Your task to perform on an android device: Go to Android settings Image 0: 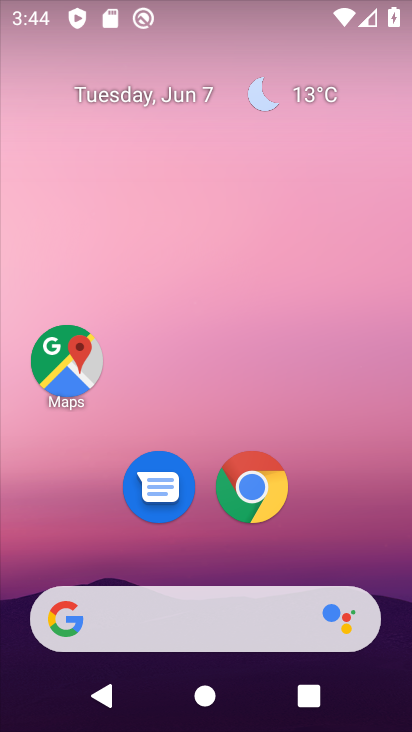
Step 0: drag from (190, 483) to (276, 2)
Your task to perform on an android device: Go to Android settings Image 1: 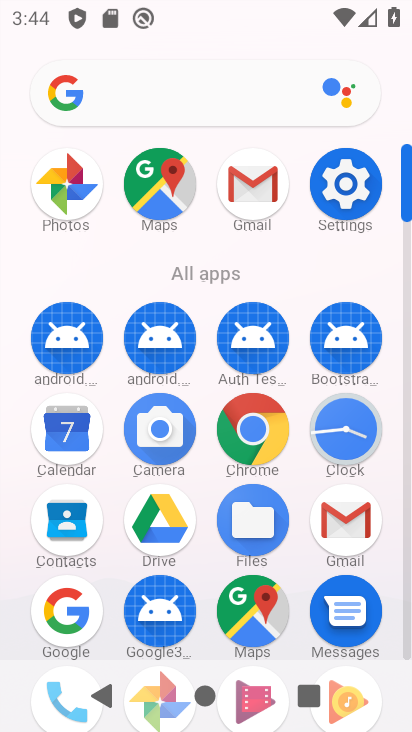
Step 1: click (339, 192)
Your task to perform on an android device: Go to Android settings Image 2: 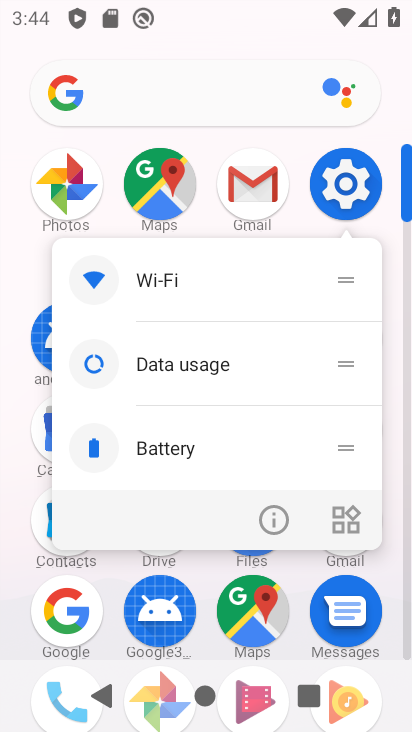
Step 2: click (355, 180)
Your task to perform on an android device: Go to Android settings Image 3: 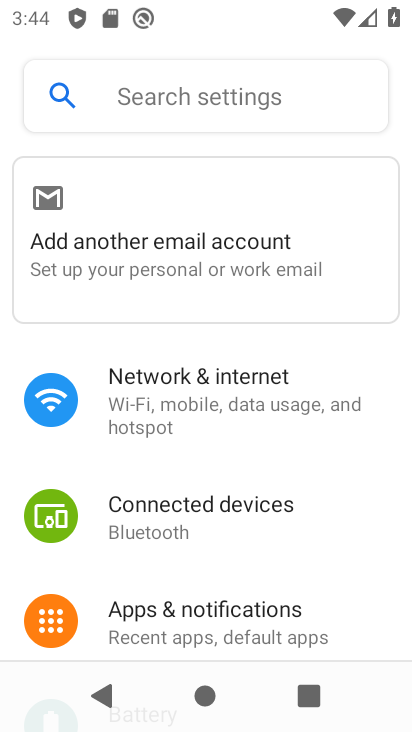
Step 3: drag from (219, 588) to (260, 50)
Your task to perform on an android device: Go to Android settings Image 4: 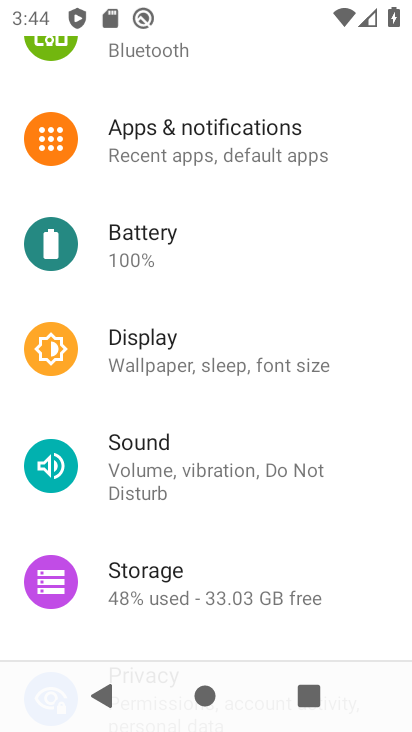
Step 4: drag from (202, 519) to (274, 25)
Your task to perform on an android device: Go to Android settings Image 5: 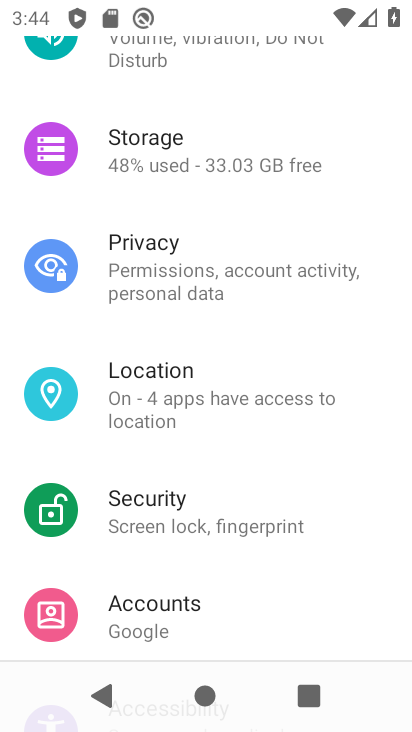
Step 5: drag from (192, 598) to (222, 58)
Your task to perform on an android device: Go to Android settings Image 6: 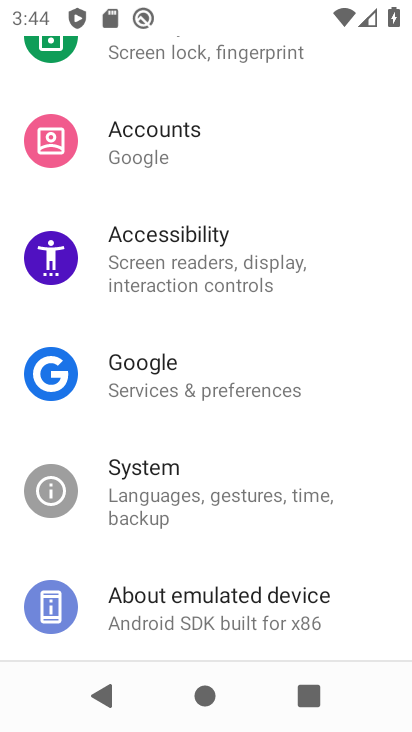
Step 6: drag from (180, 587) to (252, 19)
Your task to perform on an android device: Go to Android settings Image 7: 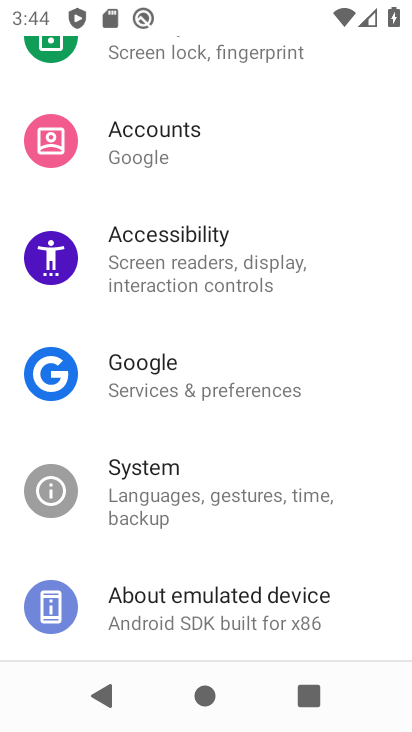
Step 7: click (177, 601)
Your task to perform on an android device: Go to Android settings Image 8: 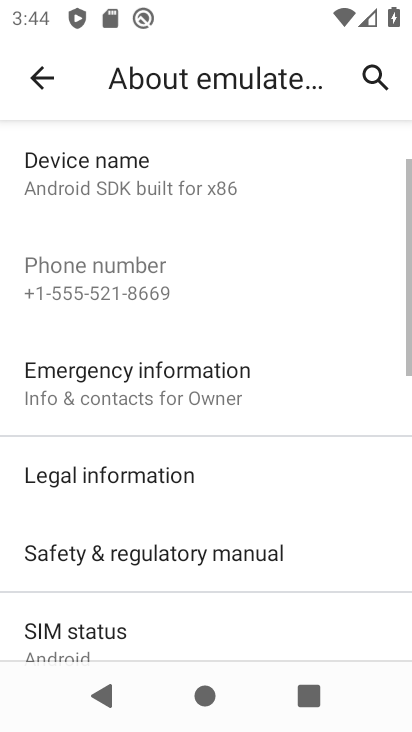
Step 8: task complete